Your task to perform on an android device: Open Google Chrome and open the bookmarks view Image 0: 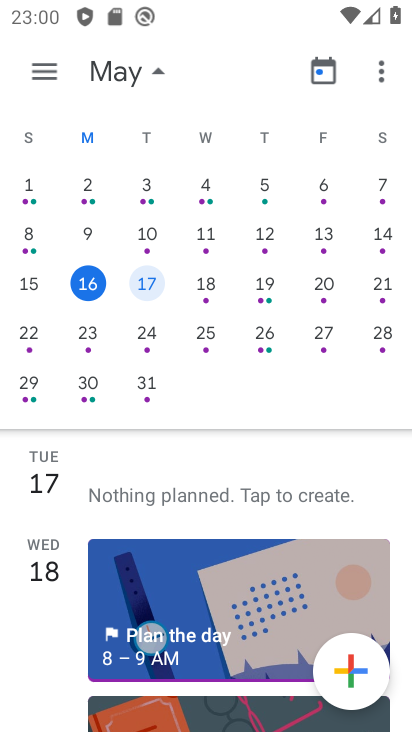
Step 0: press home button
Your task to perform on an android device: Open Google Chrome and open the bookmarks view Image 1: 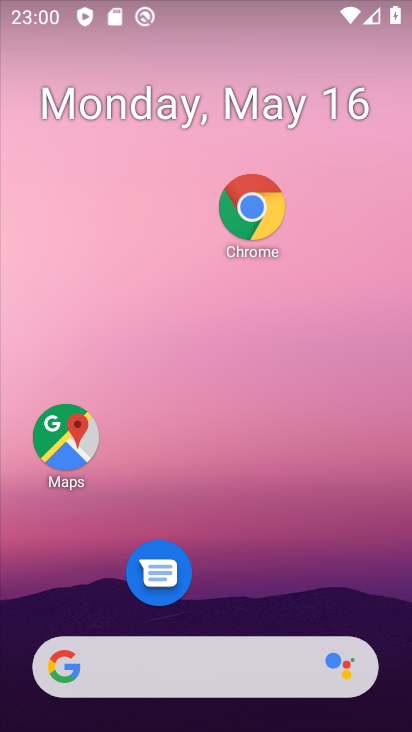
Step 1: drag from (131, 570) to (166, 94)
Your task to perform on an android device: Open Google Chrome and open the bookmarks view Image 2: 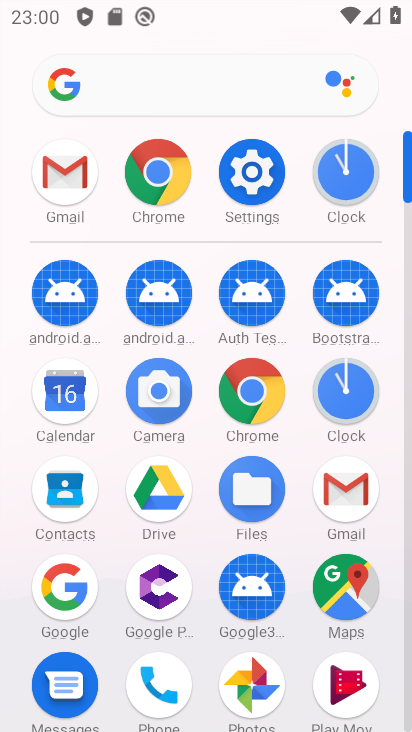
Step 2: click (271, 394)
Your task to perform on an android device: Open Google Chrome and open the bookmarks view Image 3: 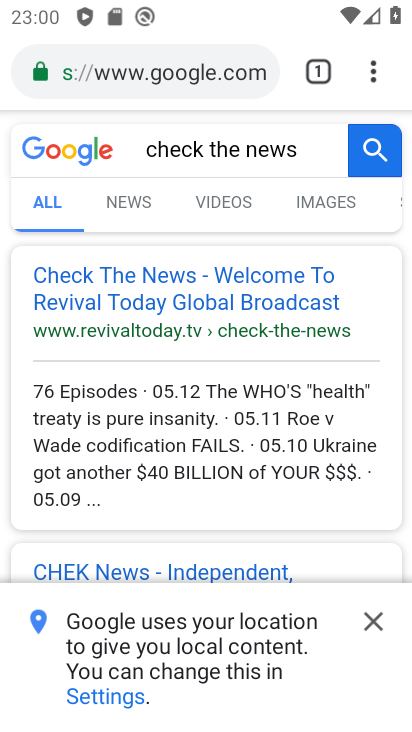
Step 3: click (371, 71)
Your task to perform on an android device: Open Google Chrome and open the bookmarks view Image 4: 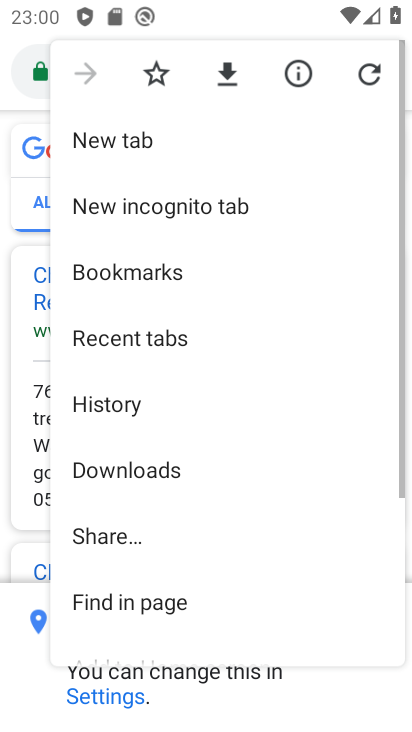
Step 4: click (176, 273)
Your task to perform on an android device: Open Google Chrome and open the bookmarks view Image 5: 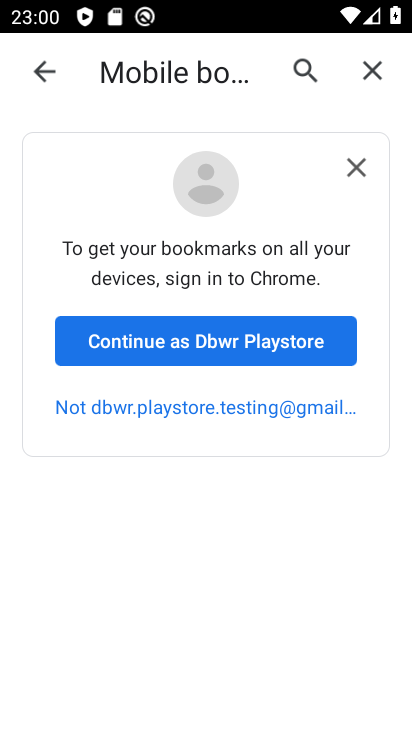
Step 5: task complete